Your task to perform on an android device: Go to wifi settings Image 0: 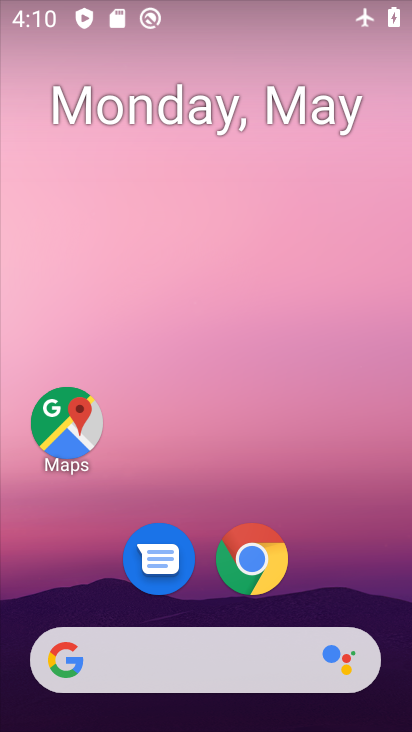
Step 0: drag from (305, 640) to (313, 0)
Your task to perform on an android device: Go to wifi settings Image 1: 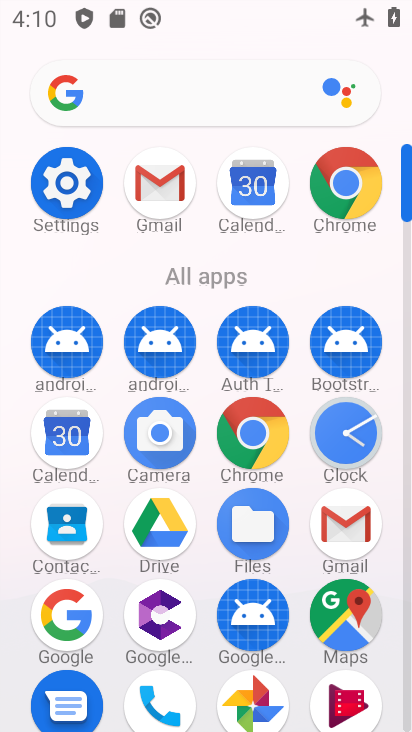
Step 1: click (74, 172)
Your task to perform on an android device: Go to wifi settings Image 2: 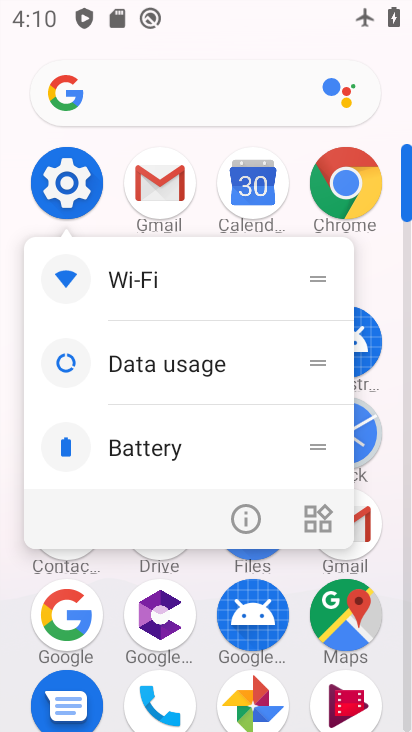
Step 2: click (80, 190)
Your task to perform on an android device: Go to wifi settings Image 3: 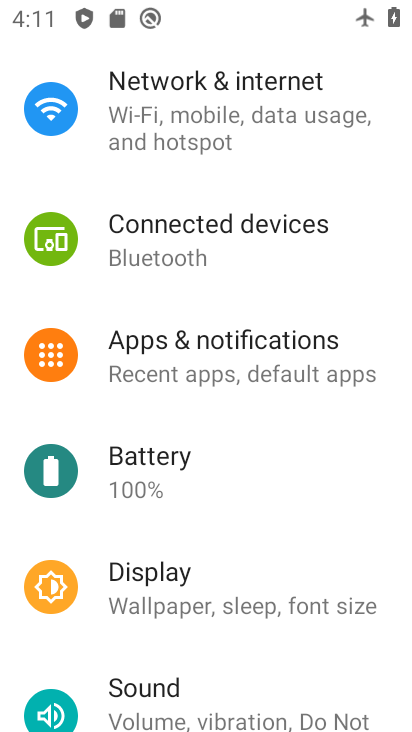
Step 3: drag from (283, 130) to (263, 504)
Your task to perform on an android device: Go to wifi settings Image 4: 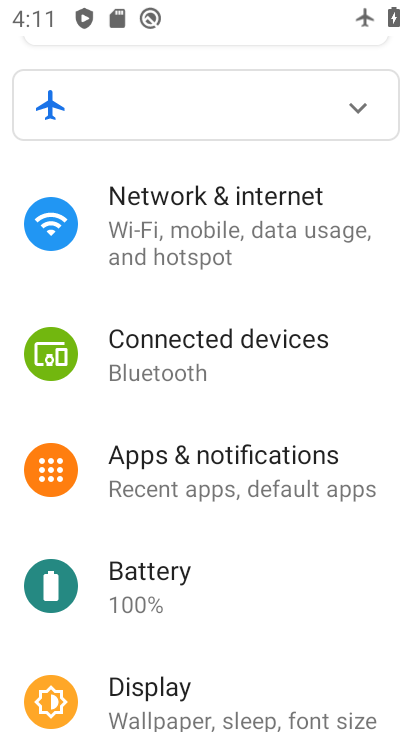
Step 4: click (321, 327)
Your task to perform on an android device: Go to wifi settings Image 5: 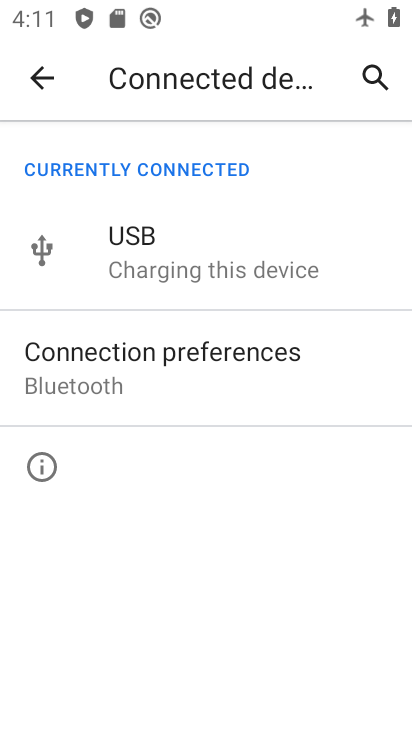
Step 5: press back button
Your task to perform on an android device: Go to wifi settings Image 6: 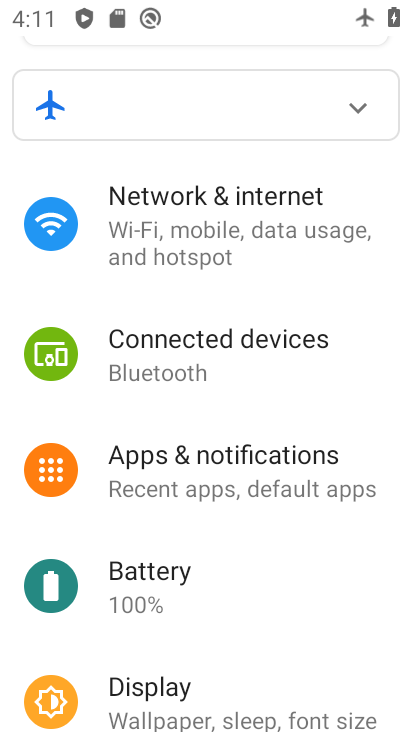
Step 6: click (247, 237)
Your task to perform on an android device: Go to wifi settings Image 7: 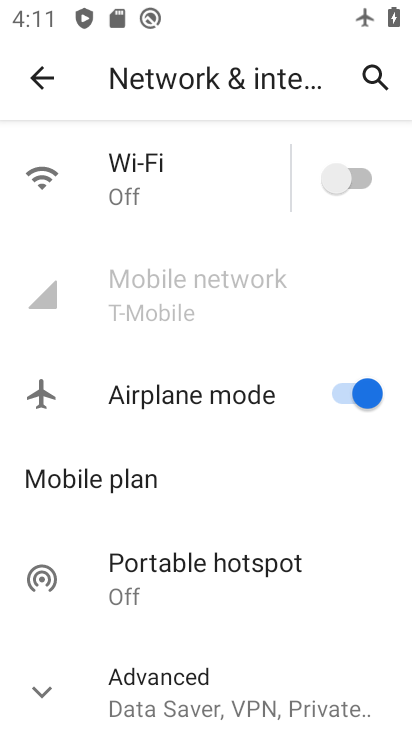
Step 7: click (191, 175)
Your task to perform on an android device: Go to wifi settings Image 8: 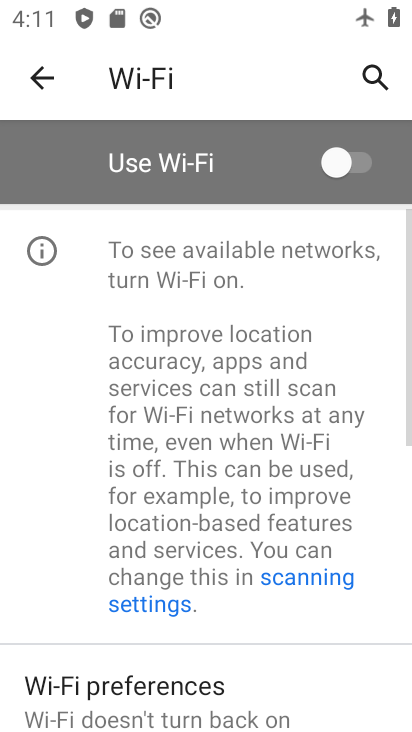
Step 8: task complete